Your task to perform on an android device: find which apps use the phone's location Image 0: 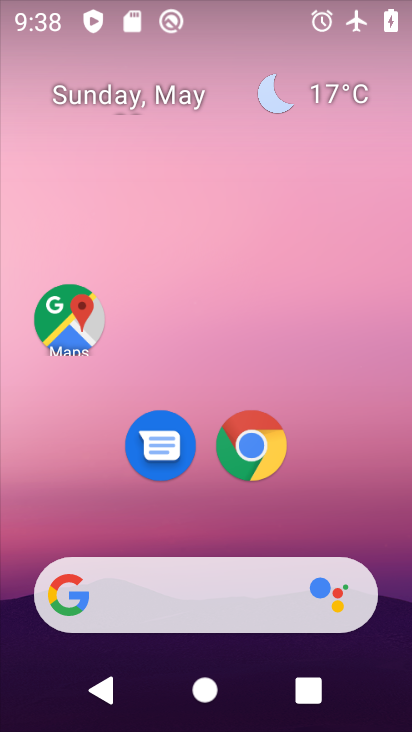
Step 0: click (233, 194)
Your task to perform on an android device: find which apps use the phone's location Image 1: 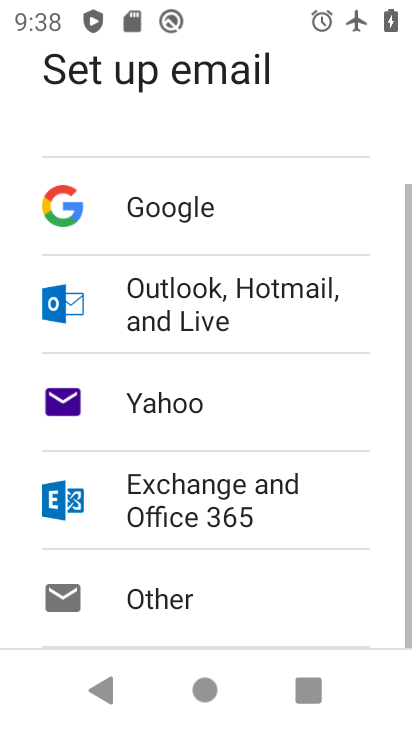
Step 1: press home button
Your task to perform on an android device: find which apps use the phone's location Image 2: 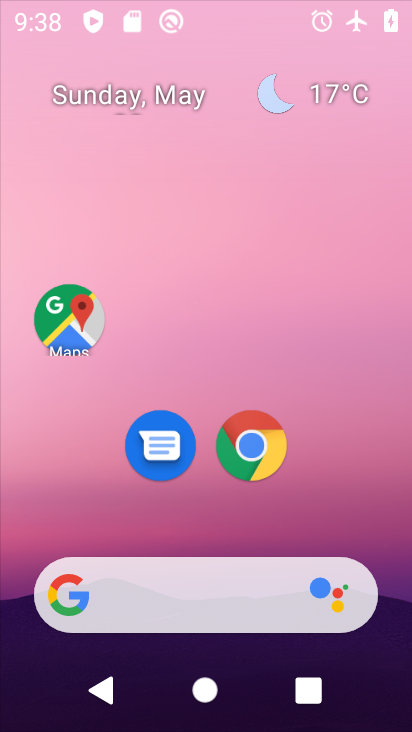
Step 2: drag from (241, 563) to (358, 202)
Your task to perform on an android device: find which apps use the phone's location Image 3: 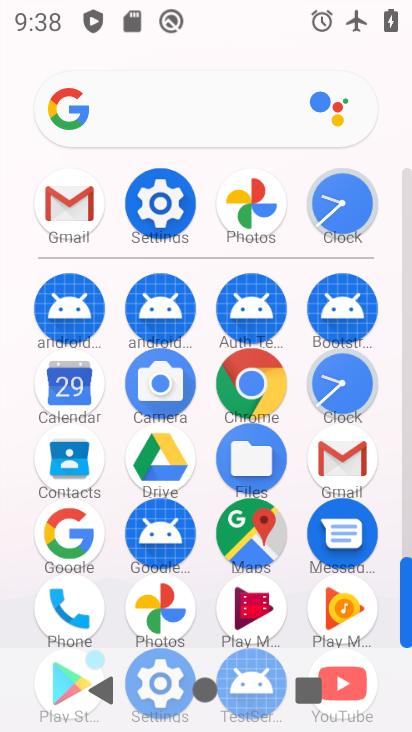
Step 3: click (149, 188)
Your task to perform on an android device: find which apps use the phone's location Image 4: 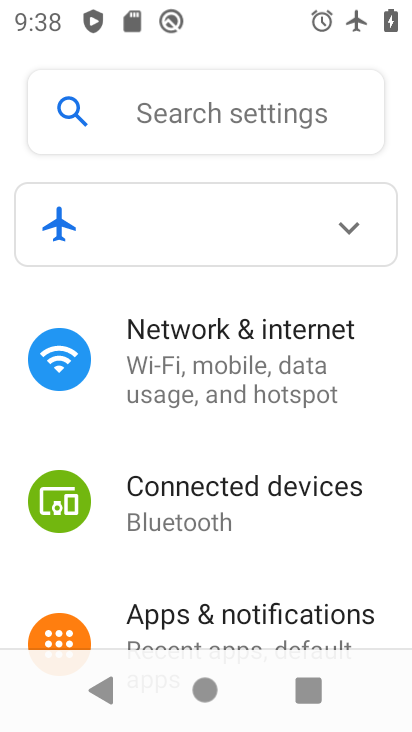
Step 4: drag from (230, 561) to (288, 248)
Your task to perform on an android device: find which apps use the phone's location Image 5: 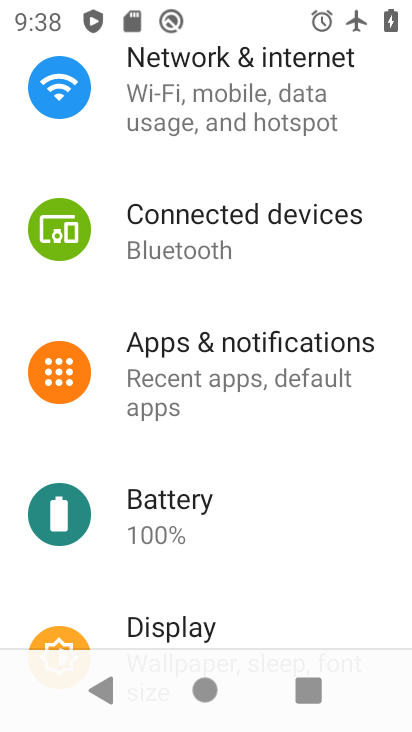
Step 5: drag from (213, 574) to (289, 195)
Your task to perform on an android device: find which apps use the phone's location Image 6: 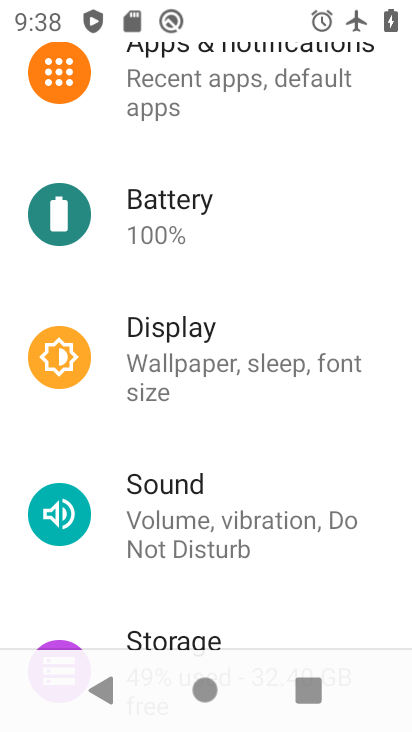
Step 6: drag from (230, 544) to (263, 116)
Your task to perform on an android device: find which apps use the phone's location Image 7: 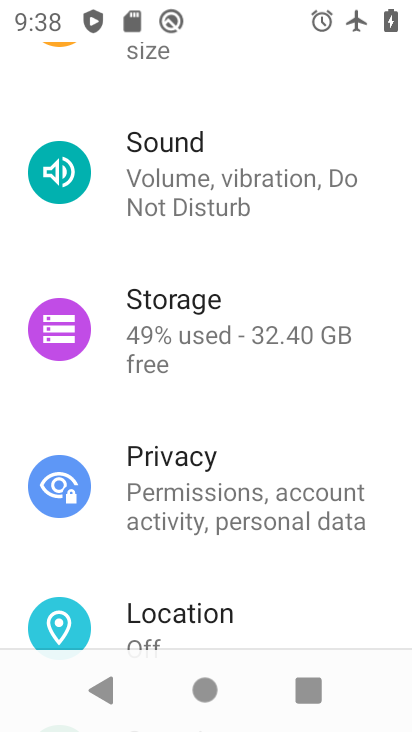
Step 7: click (187, 611)
Your task to perform on an android device: find which apps use the phone's location Image 8: 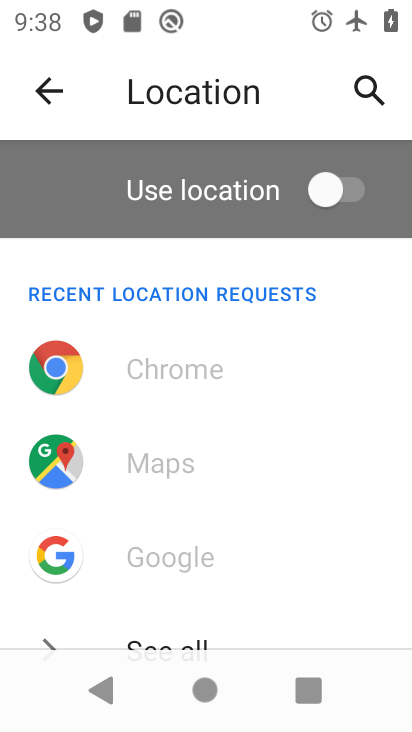
Step 8: drag from (169, 332) to (249, 639)
Your task to perform on an android device: find which apps use the phone's location Image 9: 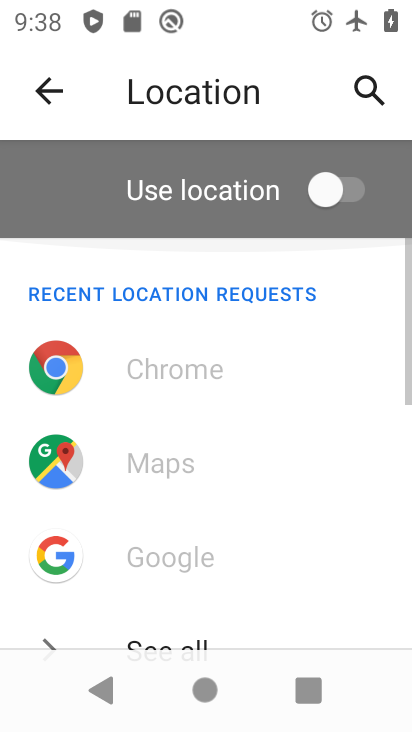
Step 9: drag from (240, 493) to (269, 204)
Your task to perform on an android device: find which apps use the phone's location Image 10: 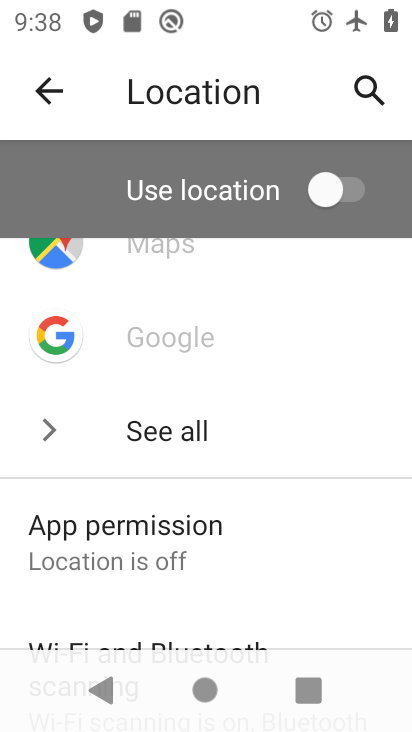
Step 10: click (177, 565)
Your task to perform on an android device: find which apps use the phone's location Image 11: 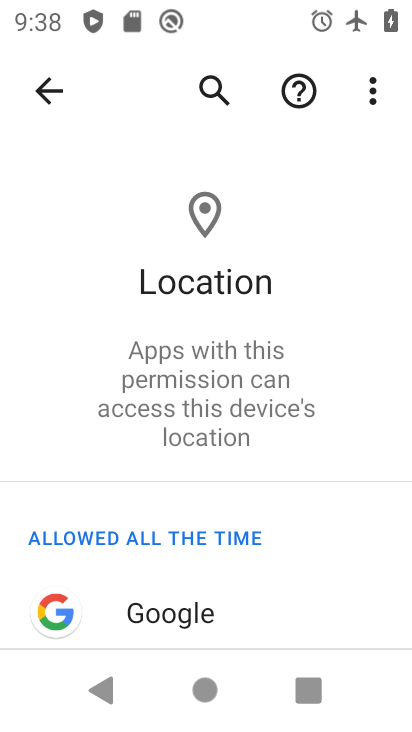
Step 11: task complete